Your task to perform on an android device: Go to wifi settings Image 0: 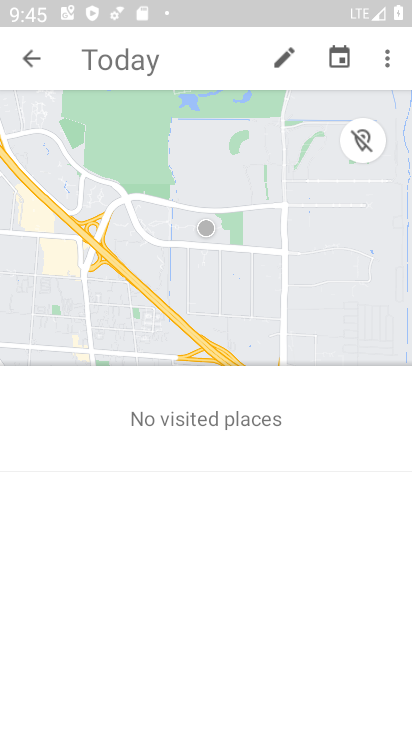
Step 0: press home button
Your task to perform on an android device: Go to wifi settings Image 1: 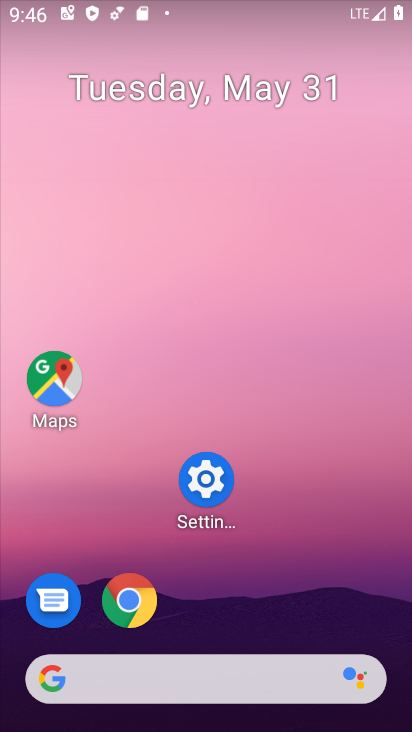
Step 1: click (205, 496)
Your task to perform on an android device: Go to wifi settings Image 2: 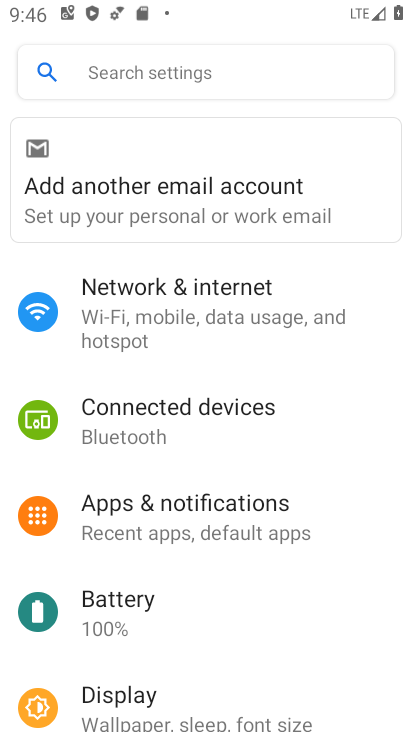
Step 2: click (185, 310)
Your task to perform on an android device: Go to wifi settings Image 3: 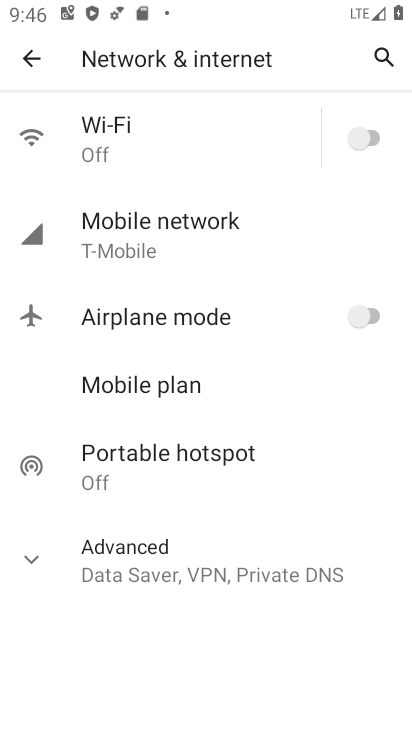
Step 3: task complete